Your task to perform on an android device: Go to location settings Image 0: 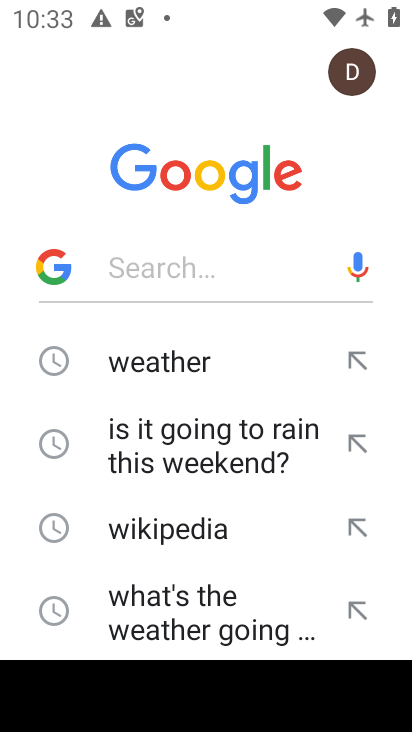
Step 0: press home button
Your task to perform on an android device: Go to location settings Image 1: 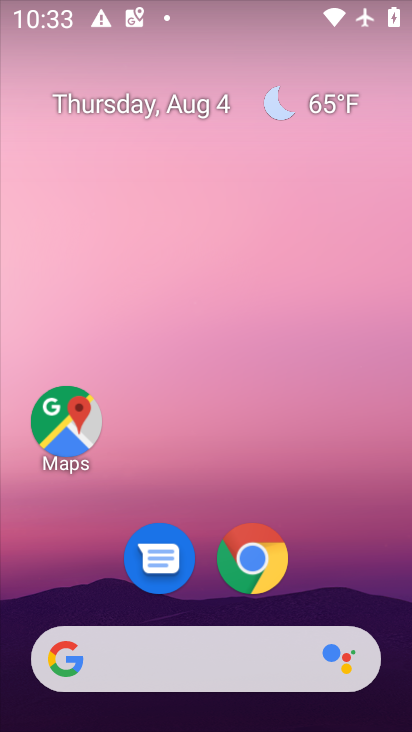
Step 1: drag from (355, 541) to (254, 116)
Your task to perform on an android device: Go to location settings Image 2: 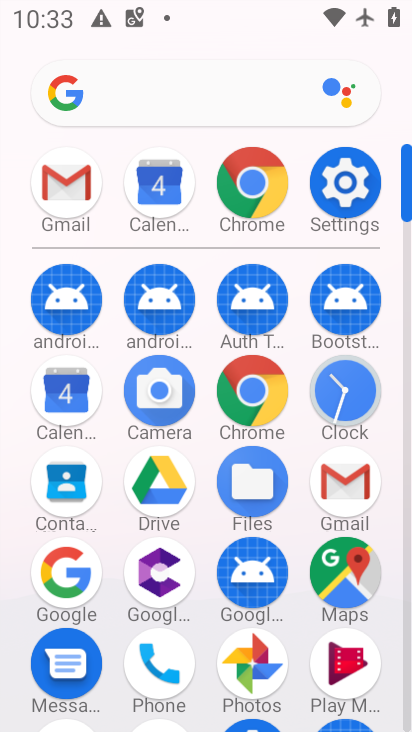
Step 2: click (358, 193)
Your task to perform on an android device: Go to location settings Image 3: 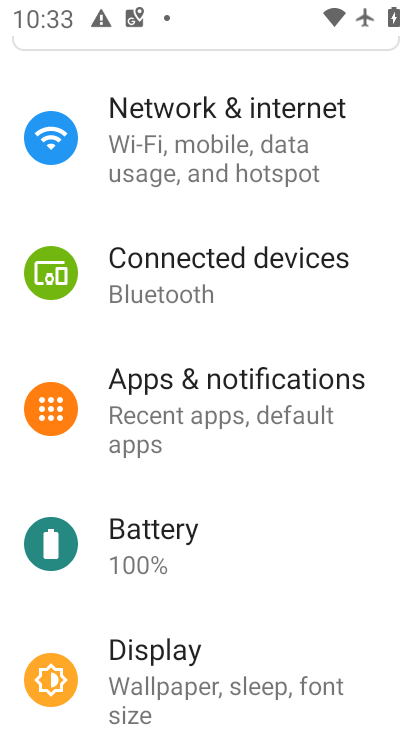
Step 3: drag from (269, 504) to (271, 167)
Your task to perform on an android device: Go to location settings Image 4: 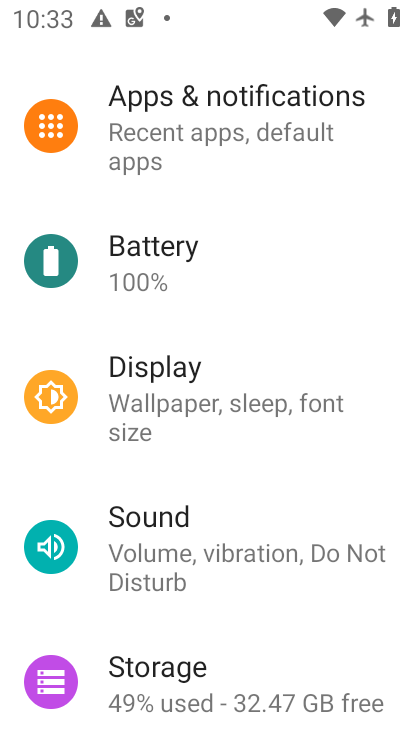
Step 4: drag from (309, 608) to (331, 249)
Your task to perform on an android device: Go to location settings Image 5: 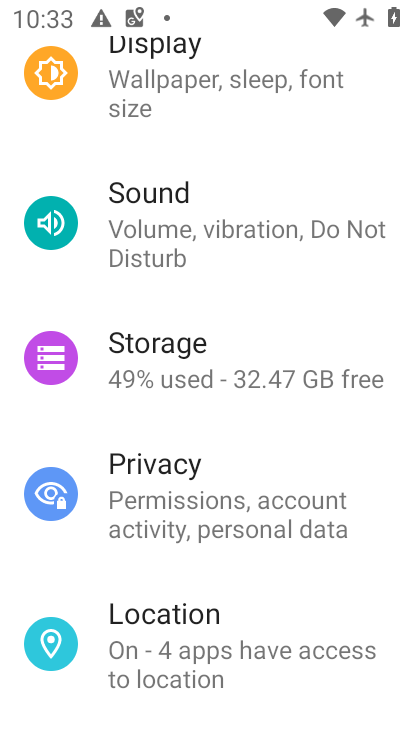
Step 5: click (179, 631)
Your task to perform on an android device: Go to location settings Image 6: 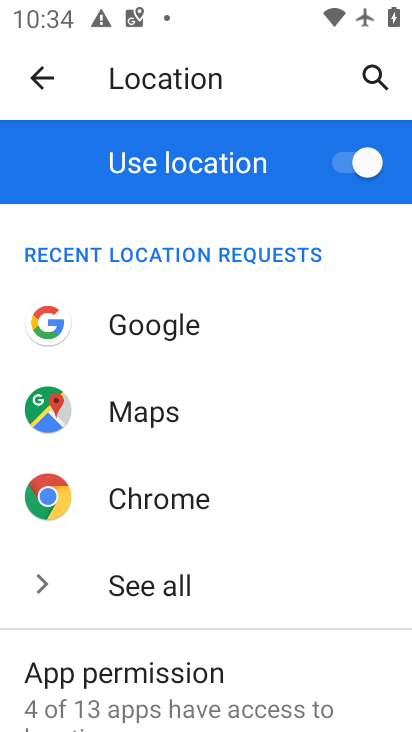
Step 6: task complete